Your task to perform on an android device: Open Yahoo.com Image 0: 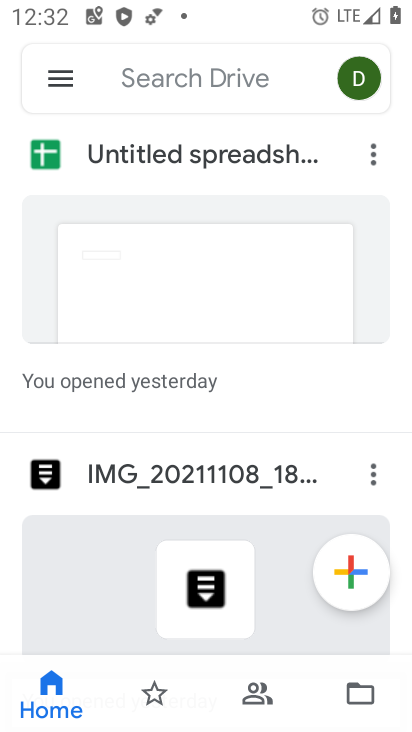
Step 0: press home button
Your task to perform on an android device: Open Yahoo.com Image 1: 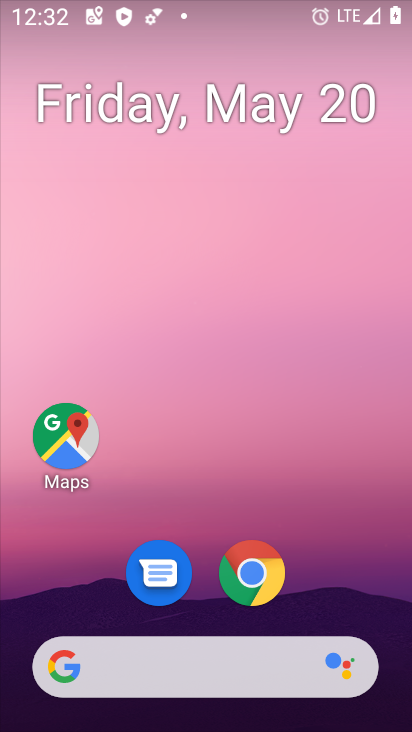
Step 1: click (256, 573)
Your task to perform on an android device: Open Yahoo.com Image 2: 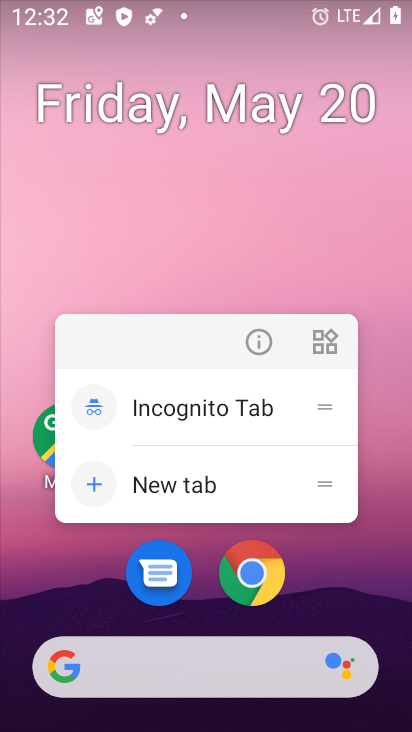
Step 2: click (256, 573)
Your task to perform on an android device: Open Yahoo.com Image 3: 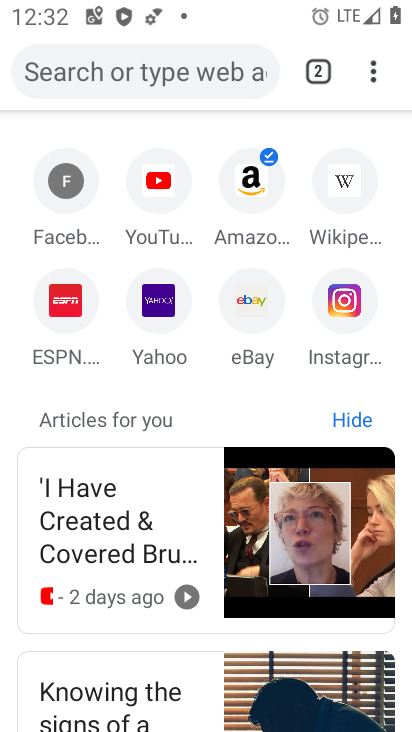
Step 3: click (156, 313)
Your task to perform on an android device: Open Yahoo.com Image 4: 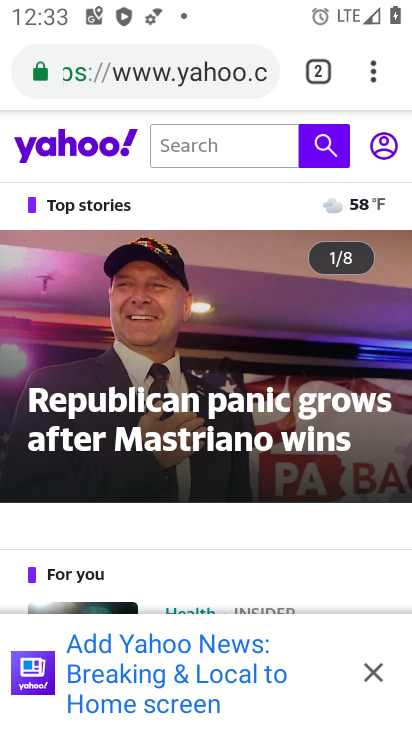
Step 4: task complete